Your task to perform on an android device: toggle notification dots Image 0: 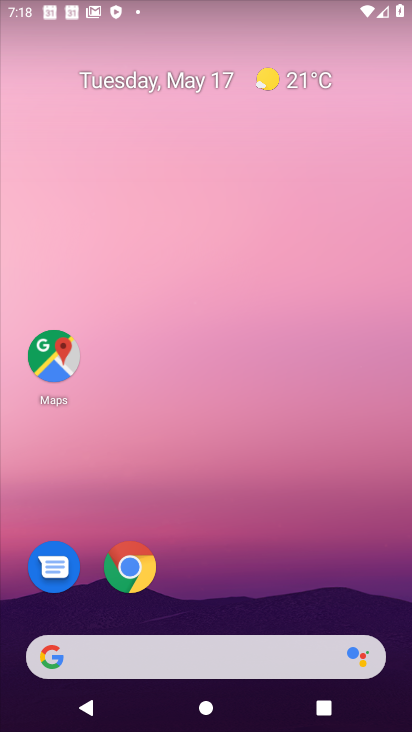
Step 0: drag from (204, 545) to (69, 60)
Your task to perform on an android device: toggle notification dots Image 1: 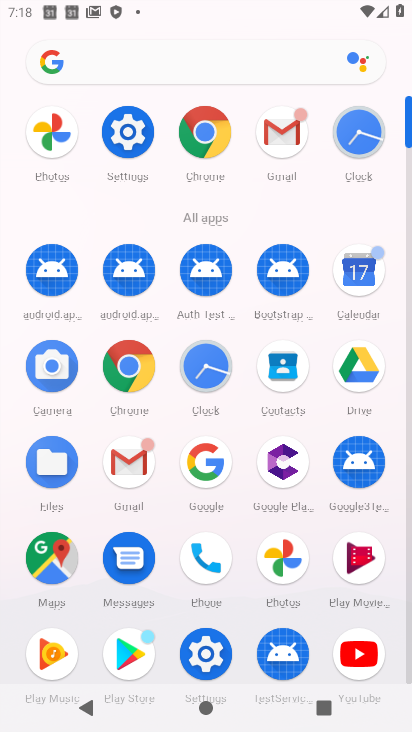
Step 1: click (133, 131)
Your task to perform on an android device: toggle notification dots Image 2: 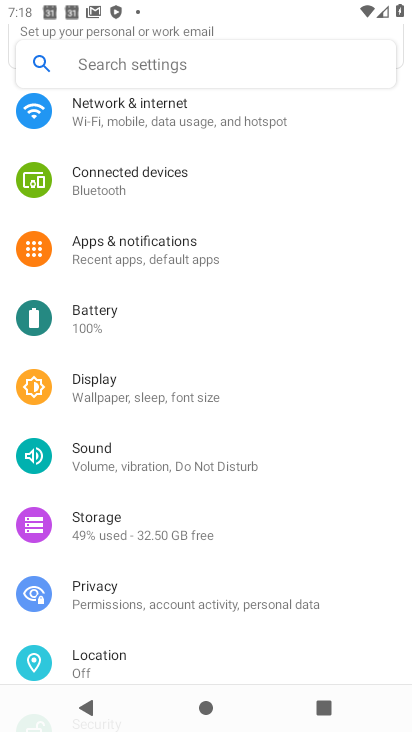
Step 2: click (146, 242)
Your task to perform on an android device: toggle notification dots Image 3: 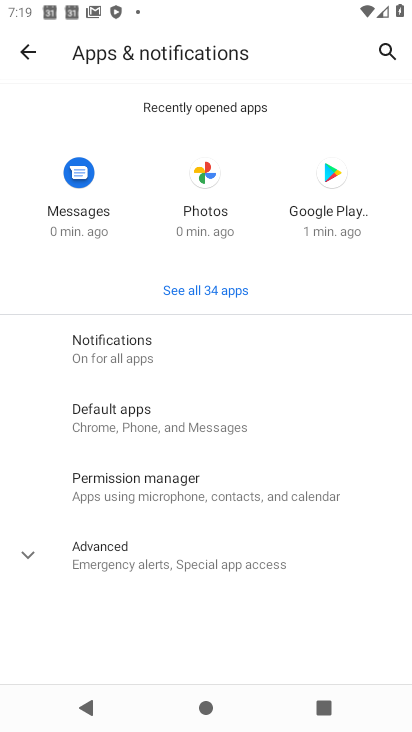
Step 3: click (30, 546)
Your task to perform on an android device: toggle notification dots Image 4: 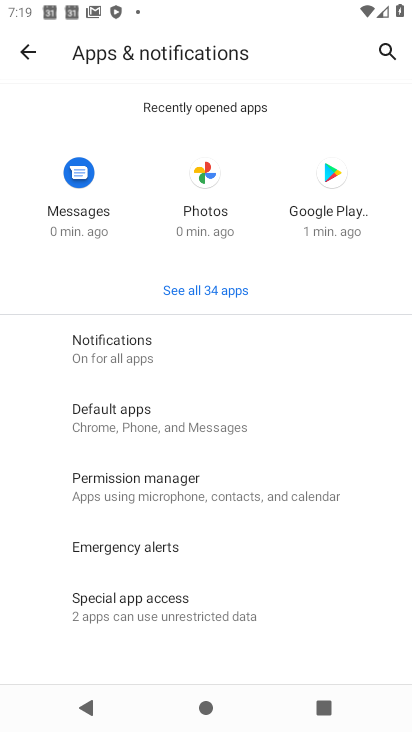
Step 4: click (126, 336)
Your task to perform on an android device: toggle notification dots Image 5: 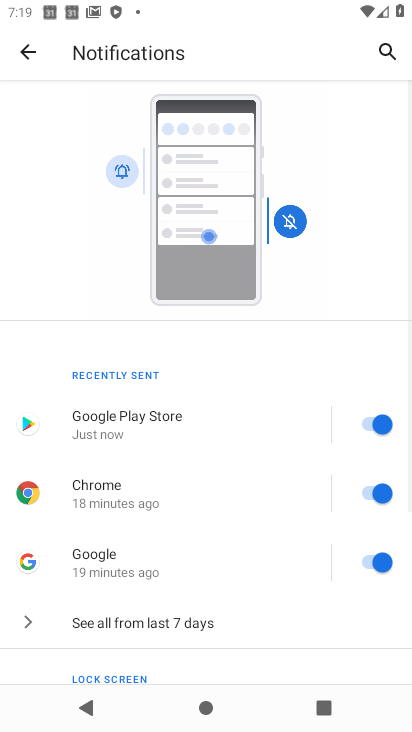
Step 5: drag from (219, 515) to (133, 160)
Your task to perform on an android device: toggle notification dots Image 6: 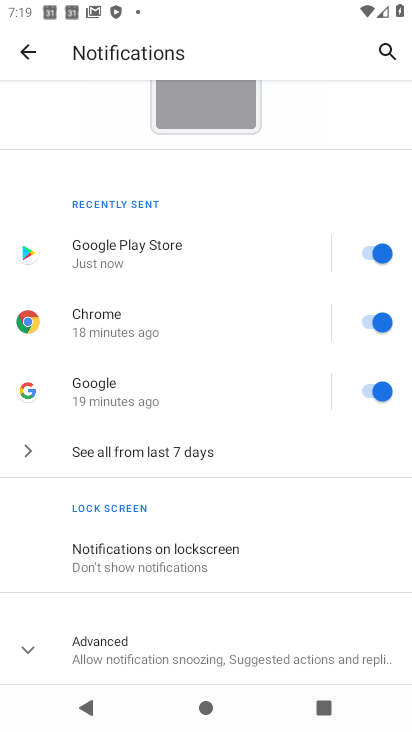
Step 6: click (36, 649)
Your task to perform on an android device: toggle notification dots Image 7: 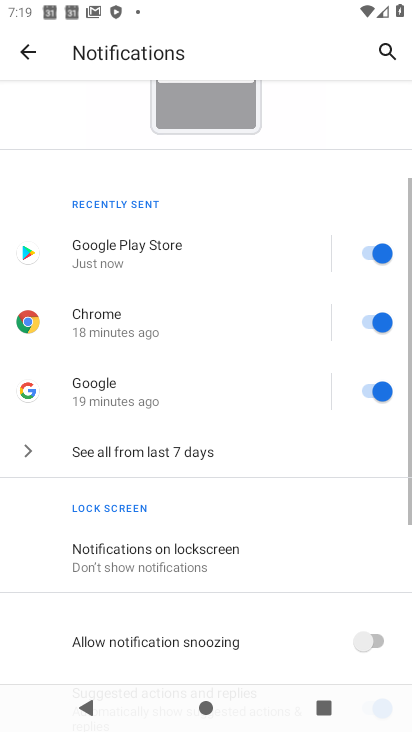
Step 7: drag from (299, 536) to (238, 190)
Your task to perform on an android device: toggle notification dots Image 8: 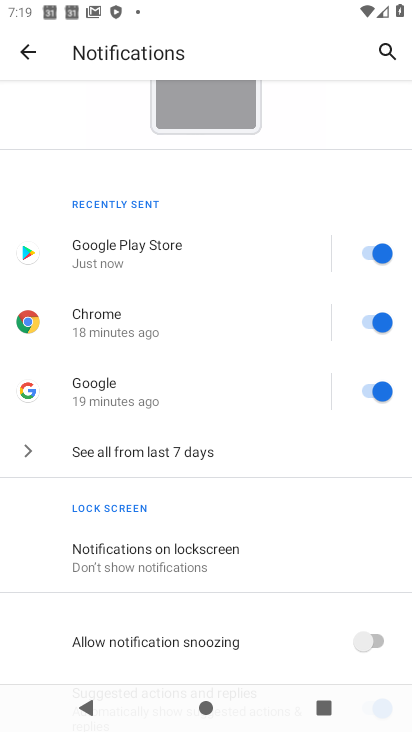
Step 8: drag from (209, 575) to (226, 372)
Your task to perform on an android device: toggle notification dots Image 9: 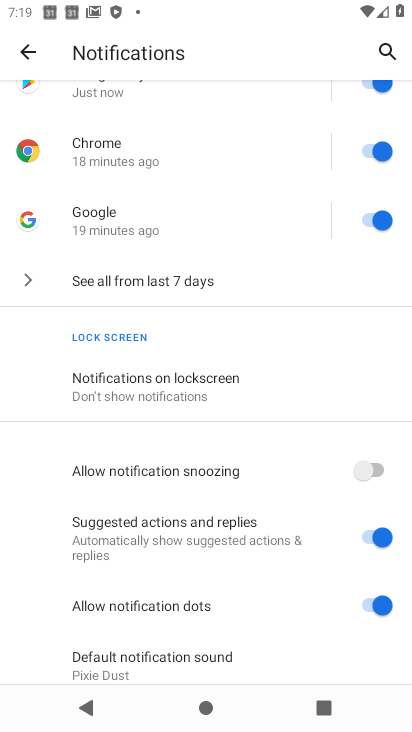
Step 9: click (384, 601)
Your task to perform on an android device: toggle notification dots Image 10: 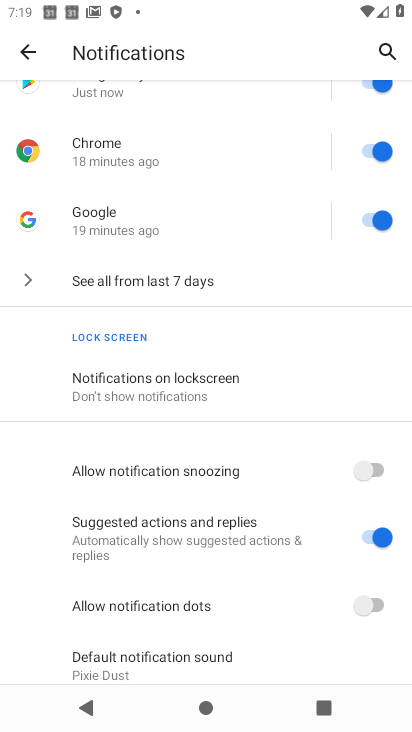
Step 10: task complete